Your task to perform on an android device: open sync settings in chrome Image 0: 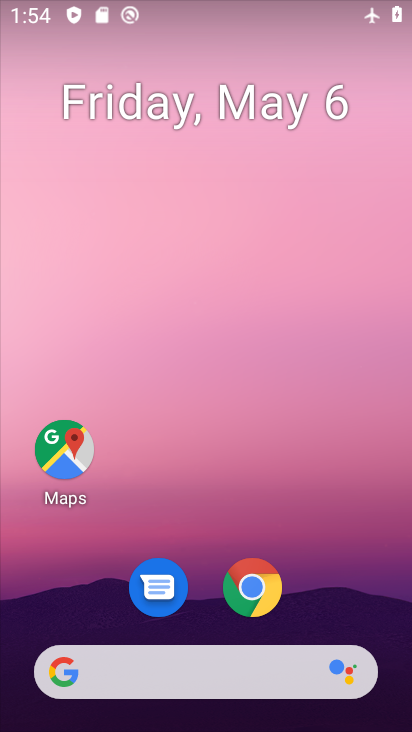
Step 0: click (254, 590)
Your task to perform on an android device: open sync settings in chrome Image 1: 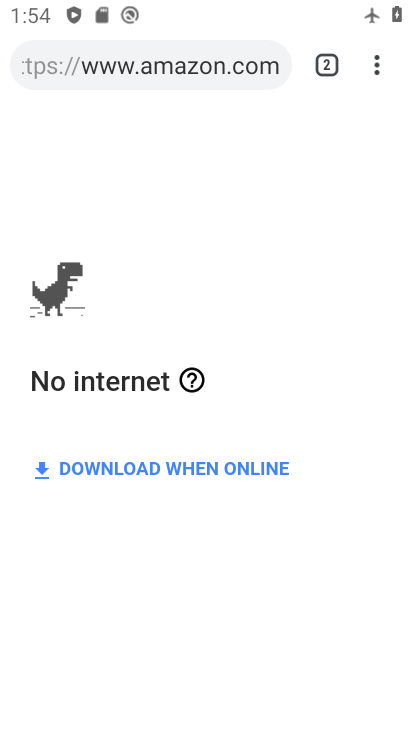
Step 1: click (370, 55)
Your task to perform on an android device: open sync settings in chrome Image 2: 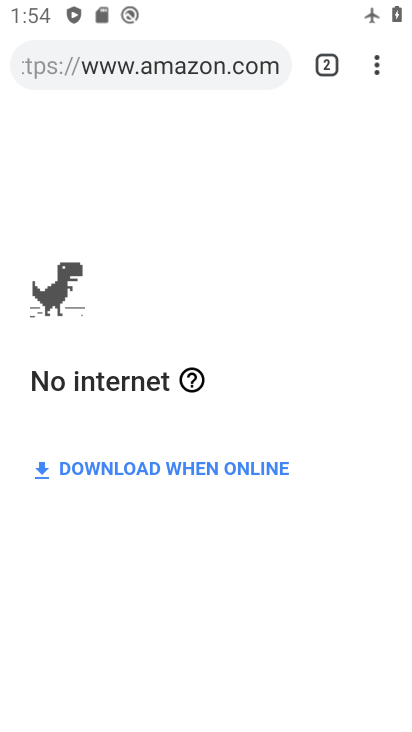
Step 2: click (376, 68)
Your task to perform on an android device: open sync settings in chrome Image 3: 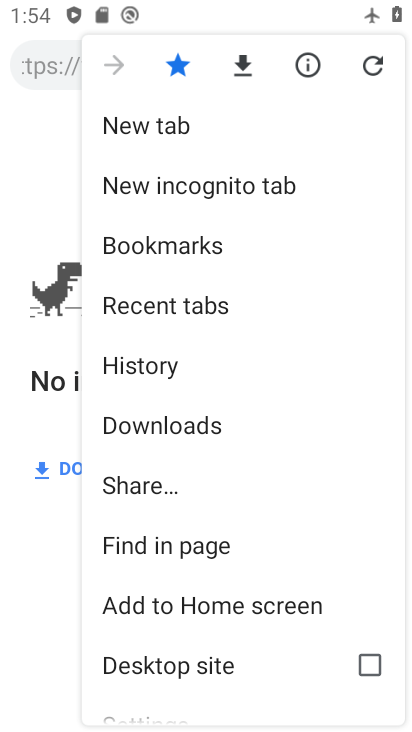
Step 3: drag from (191, 645) to (207, 419)
Your task to perform on an android device: open sync settings in chrome Image 4: 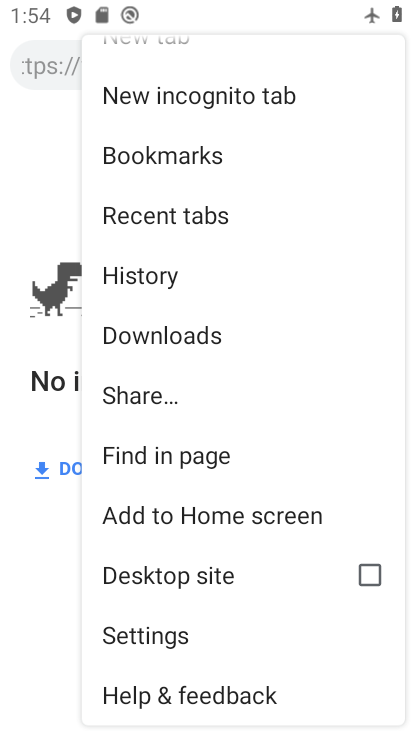
Step 4: click (195, 639)
Your task to perform on an android device: open sync settings in chrome Image 5: 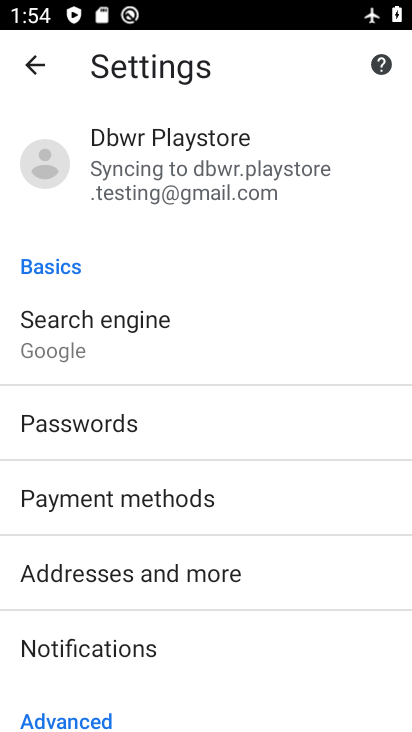
Step 5: click (168, 180)
Your task to perform on an android device: open sync settings in chrome Image 6: 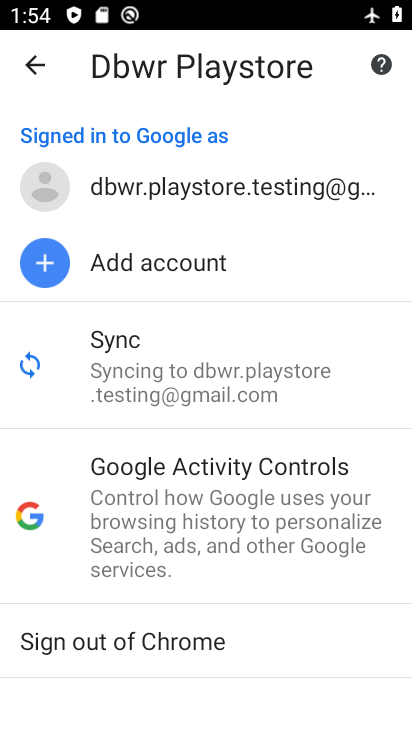
Step 6: click (173, 358)
Your task to perform on an android device: open sync settings in chrome Image 7: 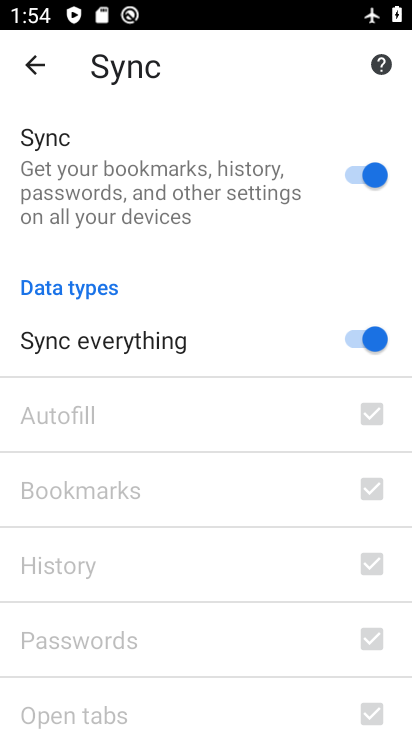
Step 7: task complete